Your task to perform on an android device: allow cookies in the chrome app Image 0: 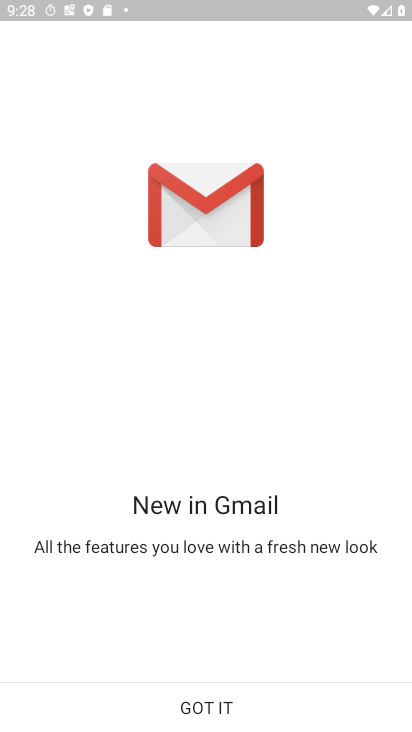
Step 0: press home button
Your task to perform on an android device: allow cookies in the chrome app Image 1: 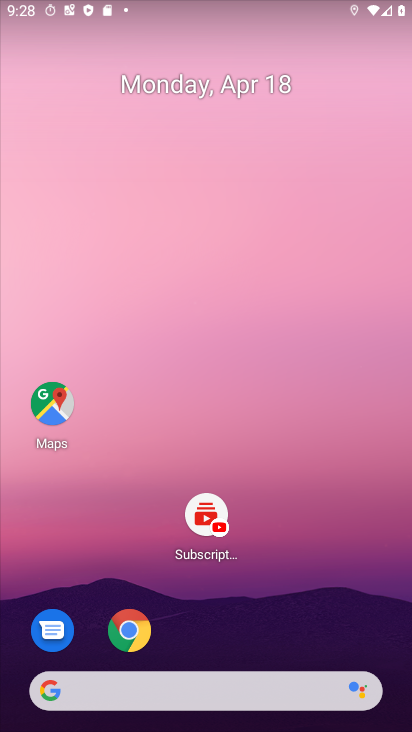
Step 1: drag from (159, 660) to (258, 182)
Your task to perform on an android device: allow cookies in the chrome app Image 2: 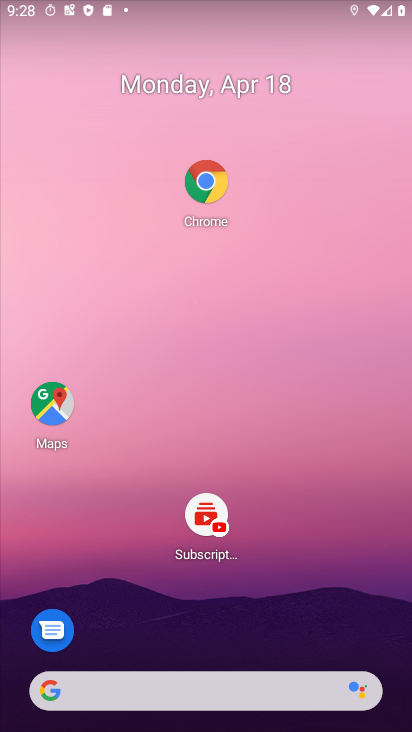
Step 2: click (202, 193)
Your task to perform on an android device: allow cookies in the chrome app Image 3: 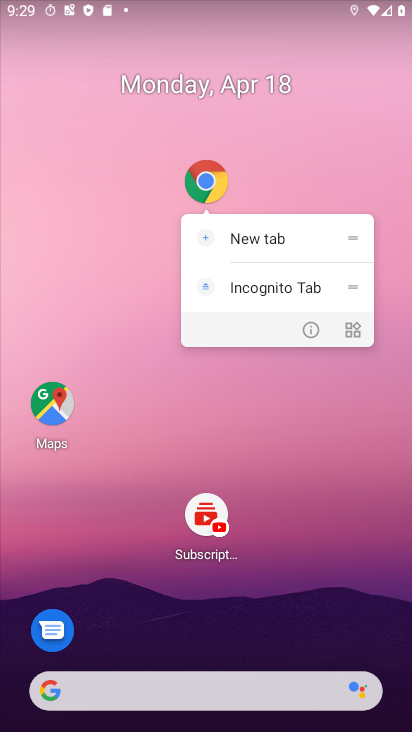
Step 3: click (206, 180)
Your task to perform on an android device: allow cookies in the chrome app Image 4: 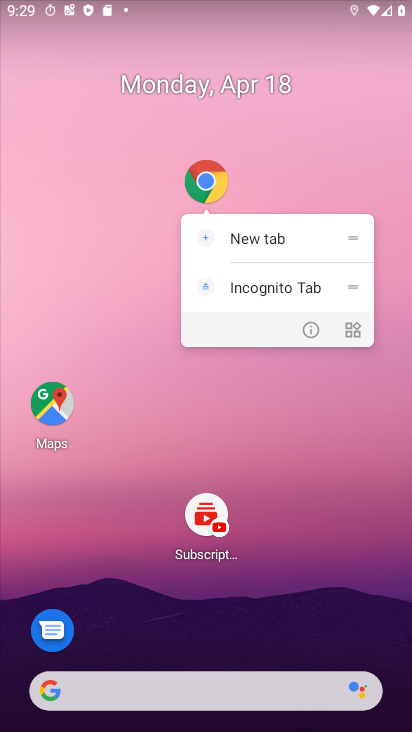
Step 4: drag from (185, 564) to (207, 90)
Your task to perform on an android device: allow cookies in the chrome app Image 5: 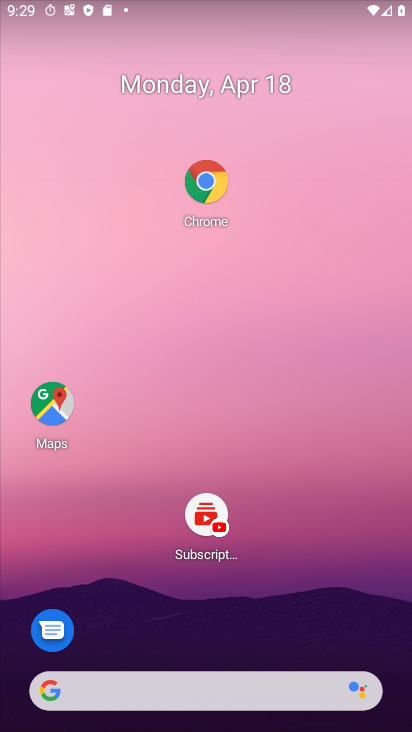
Step 5: drag from (113, 524) to (124, 199)
Your task to perform on an android device: allow cookies in the chrome app Image 6: 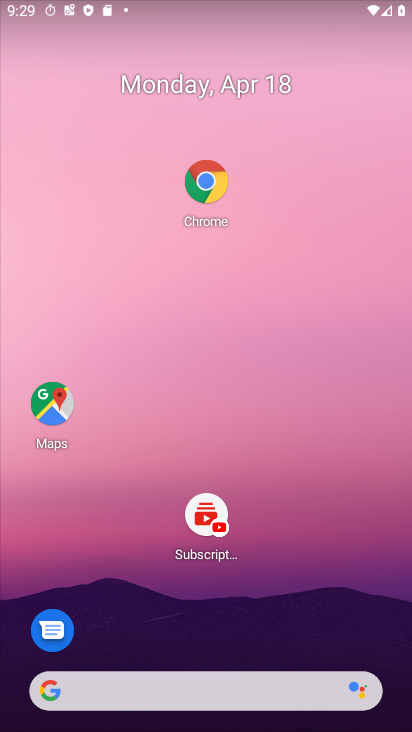
Step 6: drag from (128, 655) to (196, 146)
Your task to perform on an android device: allow cookies in the chrome app Image 7: 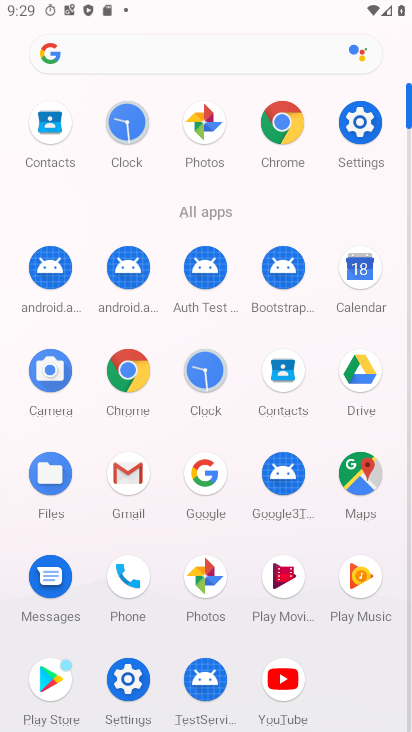
Step 7: click (269, 130)
Your task to perform on an android device: allow cookies in the chrome app Image 8: 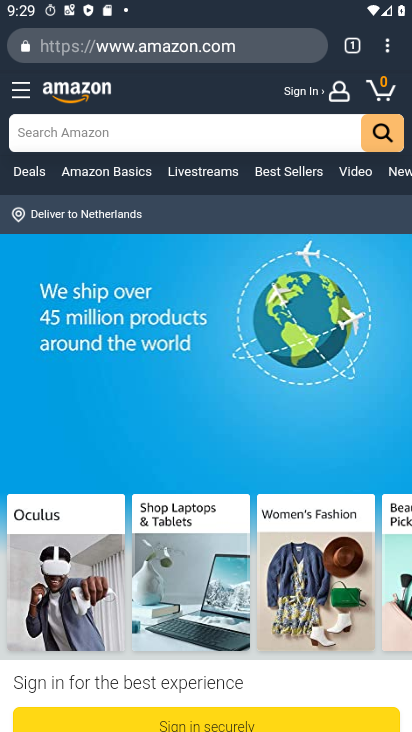
Step 8: click (382, 46)
Your task to perform on an android device: allow cookies in the chrome app Image 9: 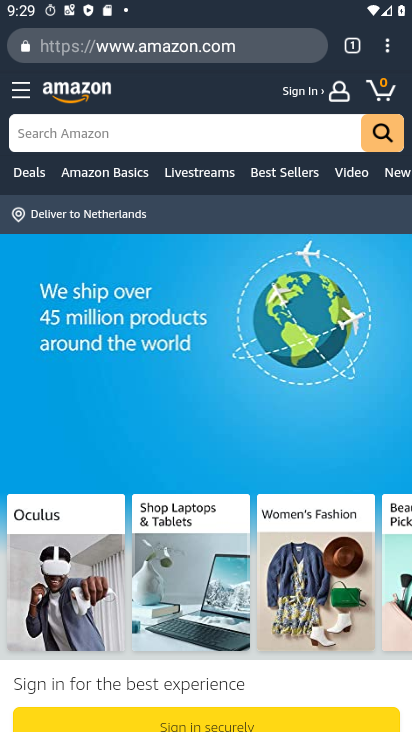
Step 9: click (389, 45)
Your task to perform on an android device: allow cookies in the chrome app Image 10: 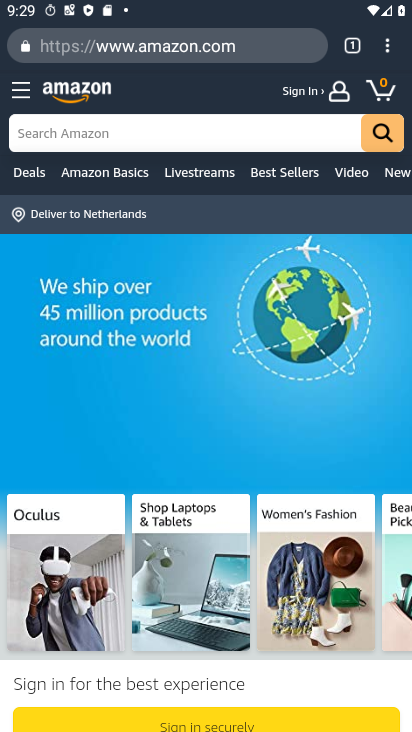
Step 10: click (383, 50)
Your task to perform on an android device: allow cookies in the chrome app Image 11: 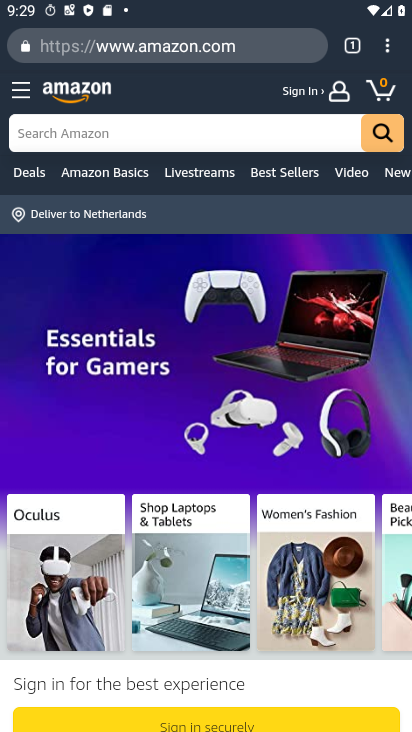
Step 11: click (379, 47)
Your task to perform on an android device: allow cookies in the chrome app Image 12: 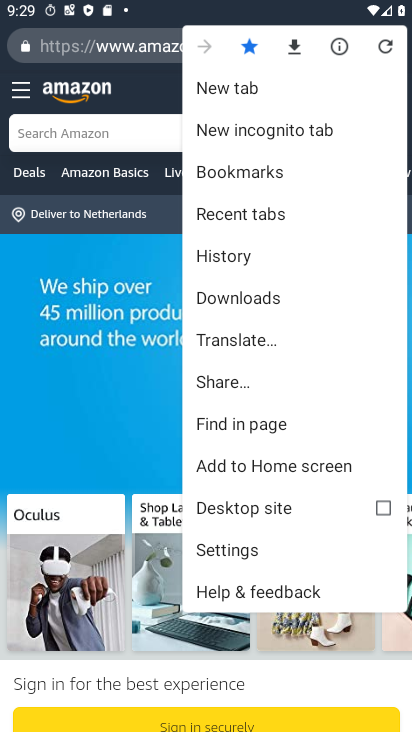
Step 12: click (250, 553)
Your task to perform on an android device: allow cookies in the chrome app Image 13: 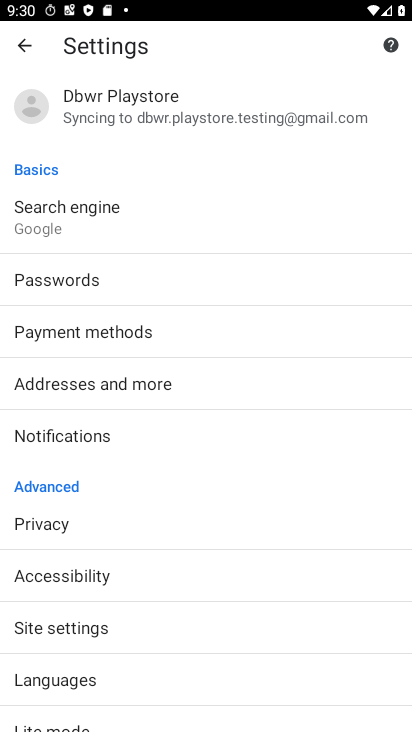
Step 13: drag from (192, 536) to (236, 240)
Your task to perform on an android device: allow cookies in the chrome app Image 14: 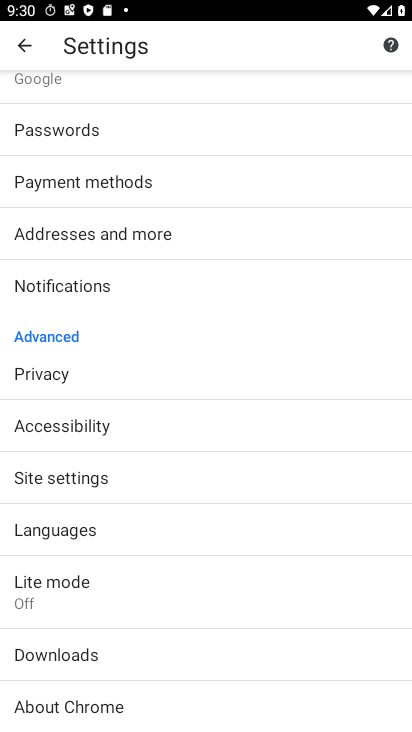
Step 14: click (99, 481)
Your task to perform on an android device: allow cookies in the chrome app Image 15: 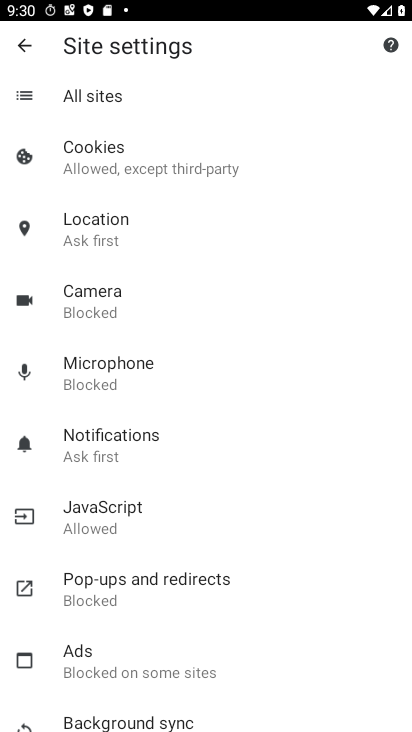
Step 15: click (134, 150)
Your task to perform on an android device: allow cookies in the chrome app Image 16: 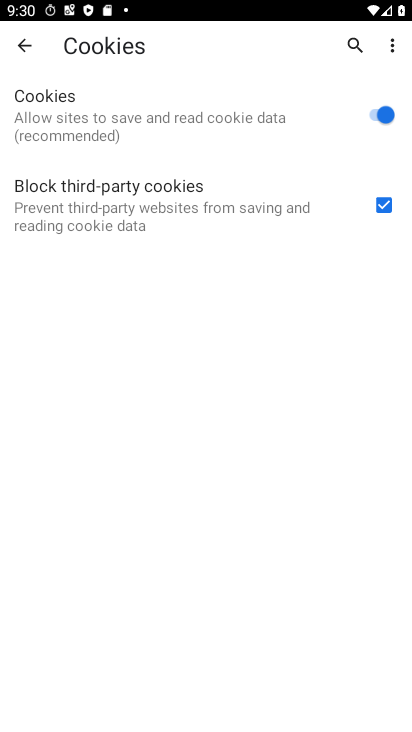
Step 16: task complete